Your task to perform on an android device: Play the last video I watched on Youtube Image 0: 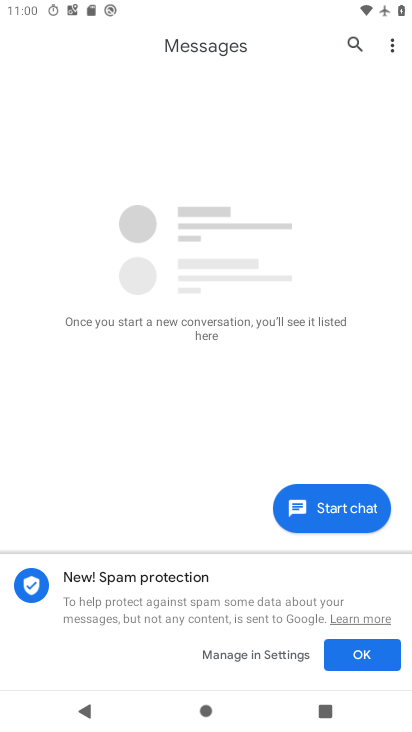
Step 0: press home button
Your task to perform on an android device: Play the last video I watched on Youtube Image 1: 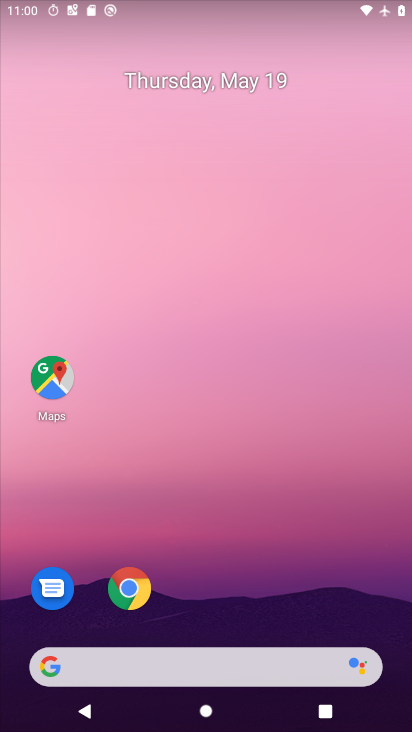
Step 1: drag from (198, 660) to (323, 126)
Your task to perform on an android device: Play the last video I watched on Youtube Image 2: 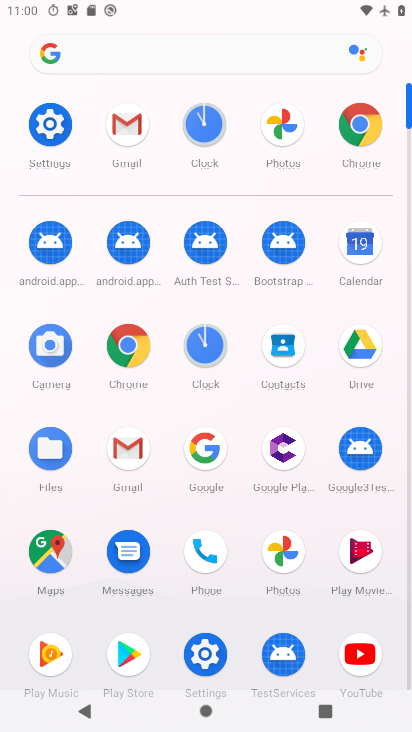
Step 2: click (363, 648)
Your task to perform on an android device: Play the last video I watched on Youtube Image 3: 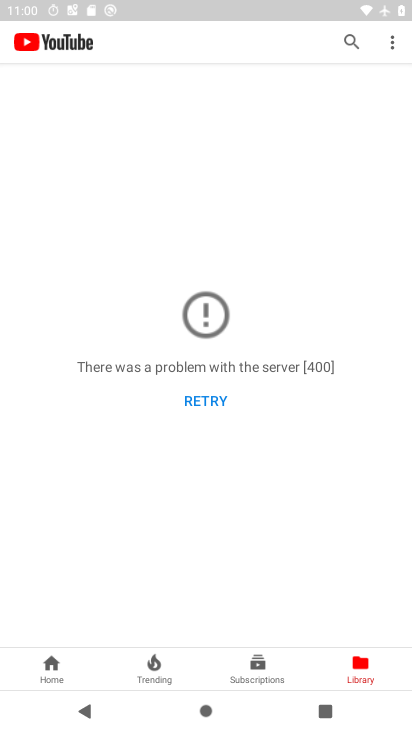
Step 3: click (214, 396)
Your task to perform on an android device: Play the last video I watched on Youtube Image 4: 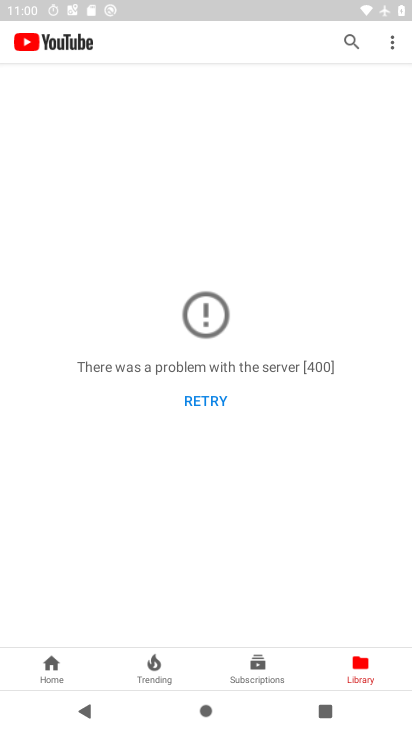
Step 4: click (206, 402)
Your task to perform on an android device: Play the last video I watched on Youtube Image 5: 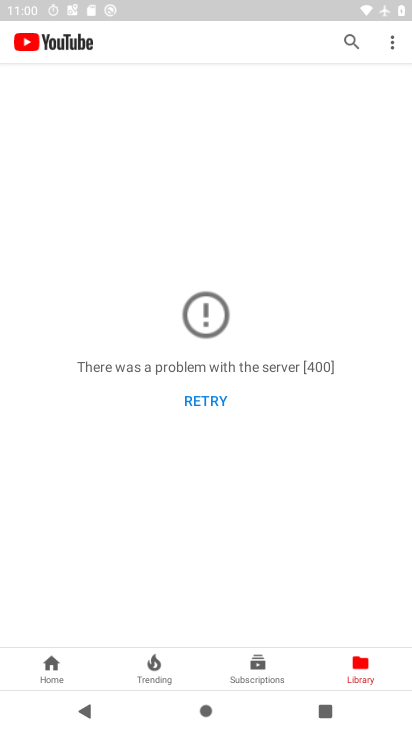
Step 5: click (206, 402)
Your task to perform on an android device: Play the last video I watched on Youtube Image 6: 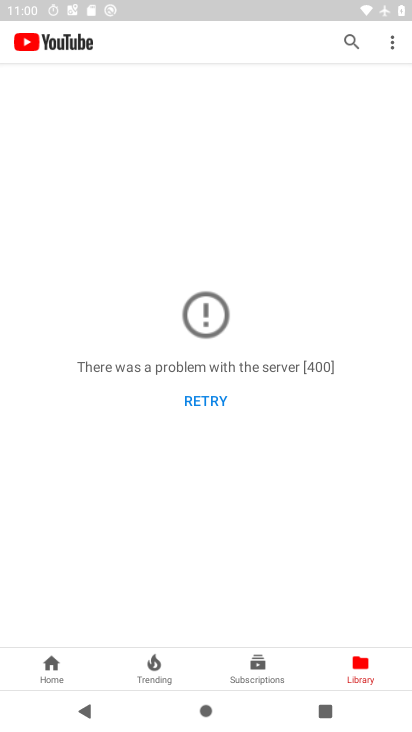
Step 6: click (206, 402)
Your task to perform on an android device: Play the last video I watched on Youtube Image 7: 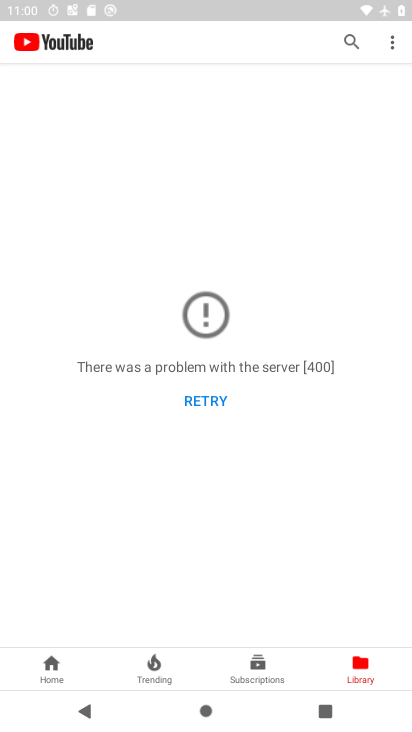
Step 7: task complete